Your task to perform on an android device: Open accessibility settings Image 0: 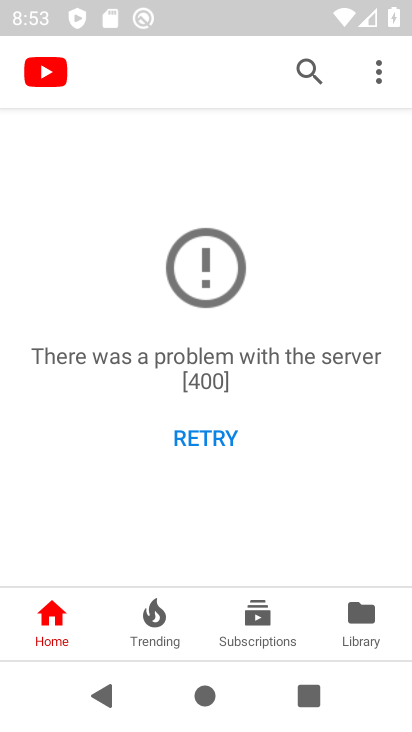
Step 0: press home button
Your task to perform on an android device: Open accessibility settings Image 1: 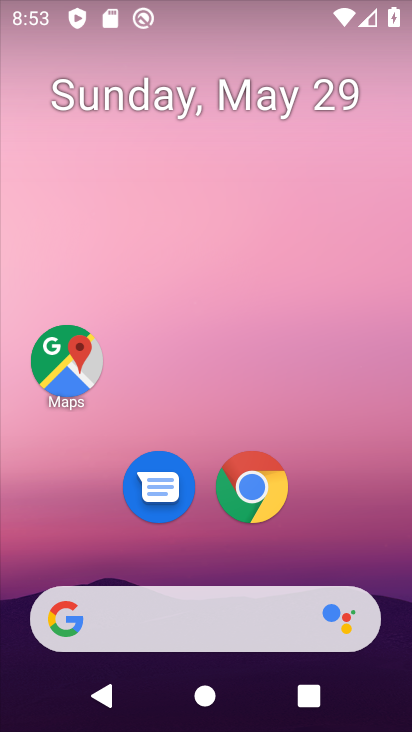
Step 1: drag from (143, 728) to (194, 91)
Your task to perform on an android device: Open accessibility settings Image 2: 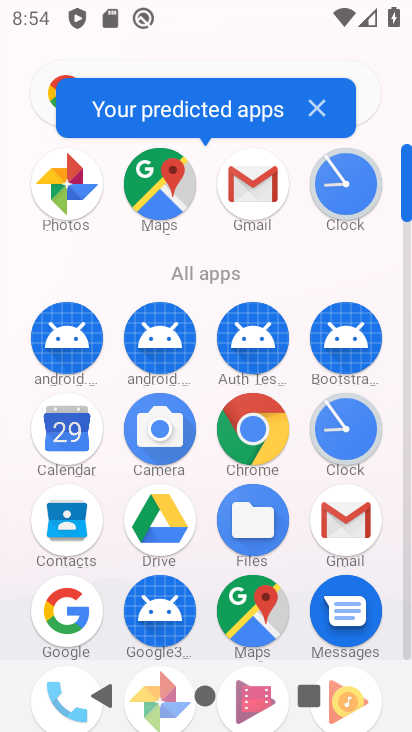
Step 2: drag from (112, 388) to (144, 144)
Your task to perform on an android device: Open accessibility settings Image 3: 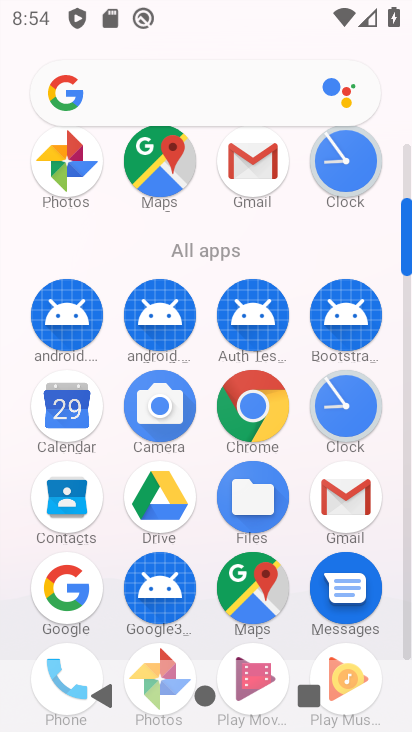
Step 3: drag from (110, 491) to (134, 236)
Your task to perform on an android device: Open accessibility settings Image 4: 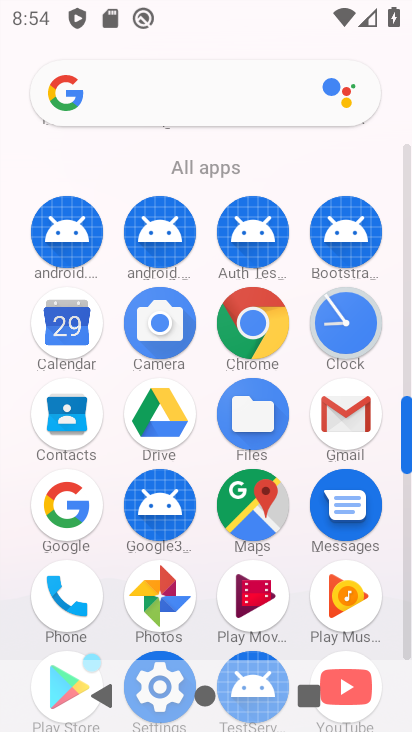
Step 4: click (143, 658)
Your task to perform on an android device: Open accessibility settings Image 5: 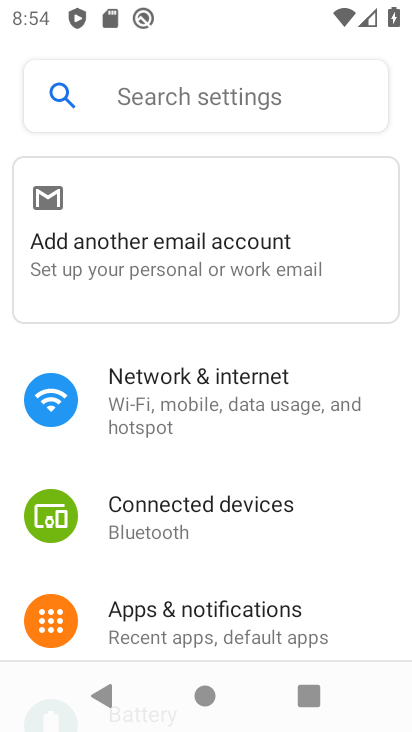
Step 5: drag from (331, 601) to (274, 158)
Your task to perform on an android device: Open accessibility settings Image 6: 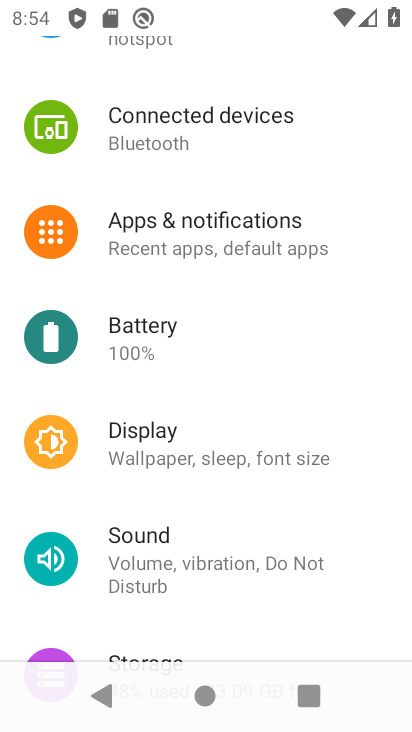
Step 6: drag from (348, 589) to (299, 128)
Your task to perform on an android device: Open accessibility settings Image 7: 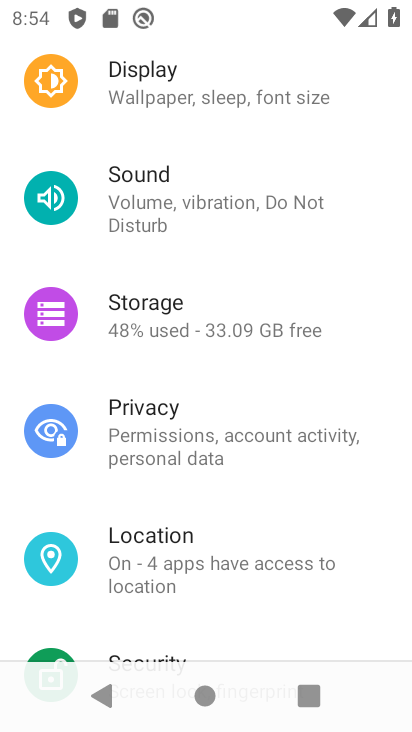
Step 7: drag from (332, 598) to (298, 238)
Your task to perform on an android device: Open accessibility settings Image 8: 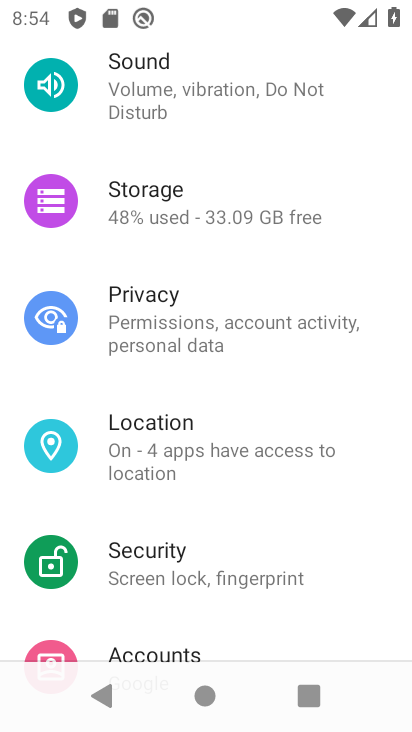
Step 8: drag from (271, 621) to (245, 199)
Your task to perform on an android device: Open accessibility settings Image 9: 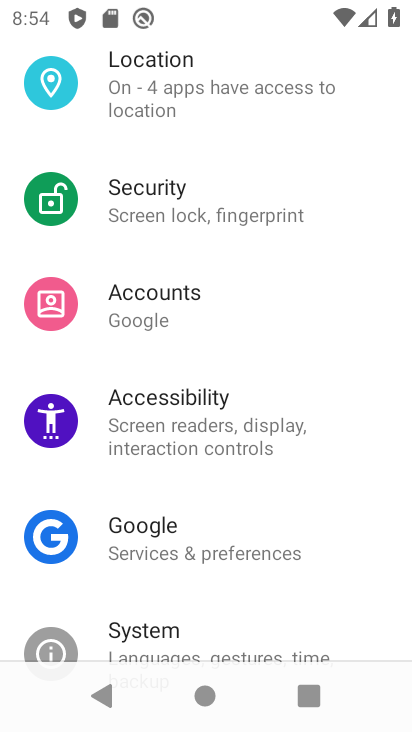
Step 9: click (197, 445)
Your task to perform on an android device: Open accessibility settings Image 10: 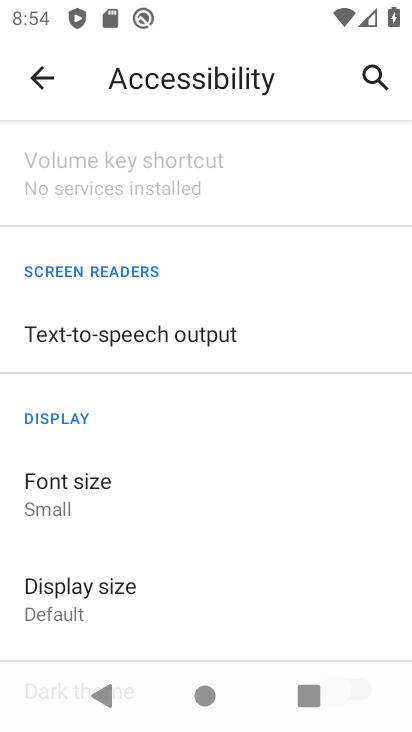
Step 10: task complete